Your task to perform on an android device: turn off data saver in the chrome app Image 0: 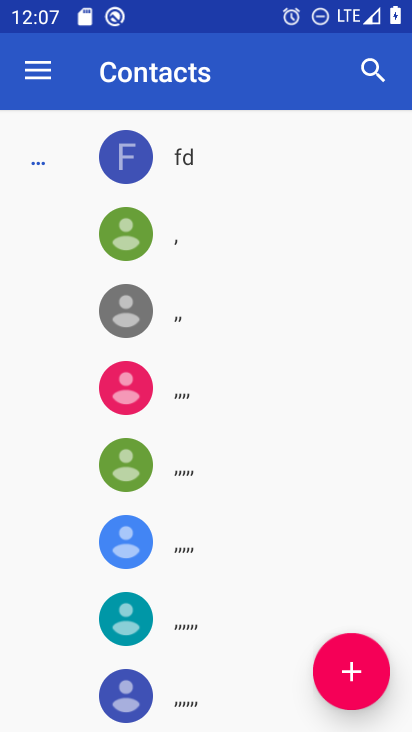
Step 0: press home button
Your task to perform on an android device: turn off data saver in the chrome app Image 1: 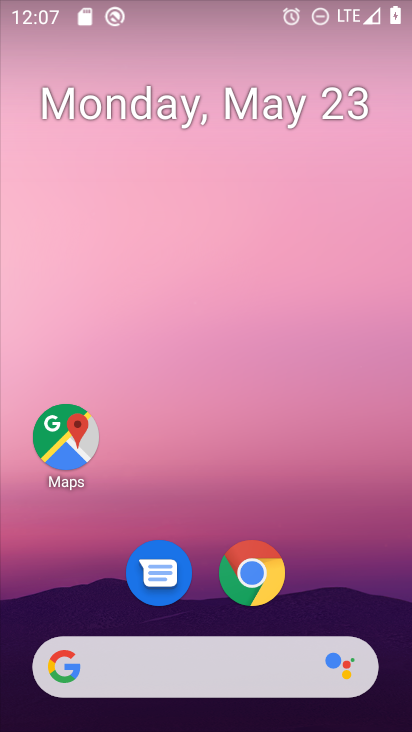
Step 1: click (252, 572)
Your task to perform on an android device: turn off data saver in the chrome app Image 2: 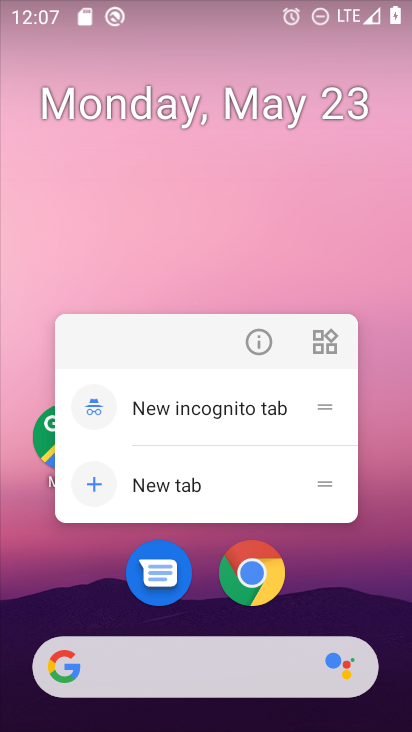
Step 2: click (235, 571)
Your task to perform on an android device: turn off data saver in the chrome app Image 3: 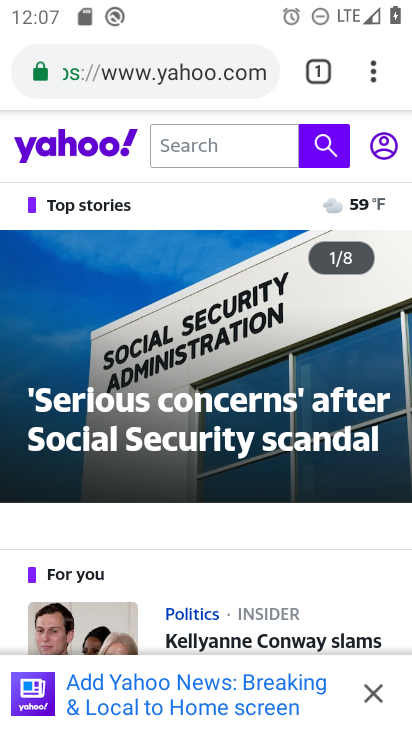
Step 3: click (372, 77)
Your task to perform on an android device: turn off data saver in the chrome app Image 4: 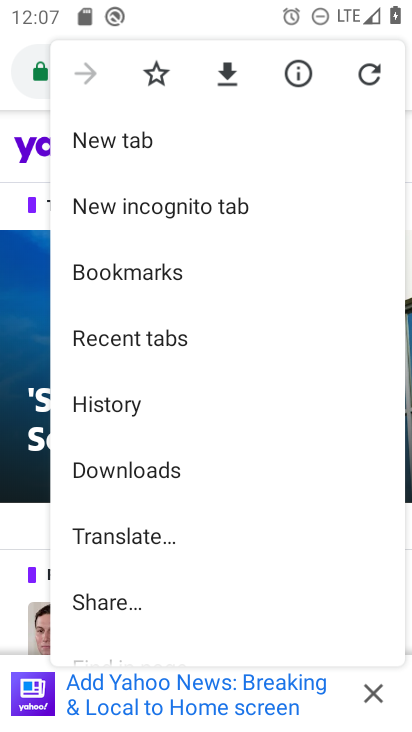
Step 4: drag from (188, 640) to (249, 279)
Your task to perform on an android device: turn off data saver in the chrome app Image 5: 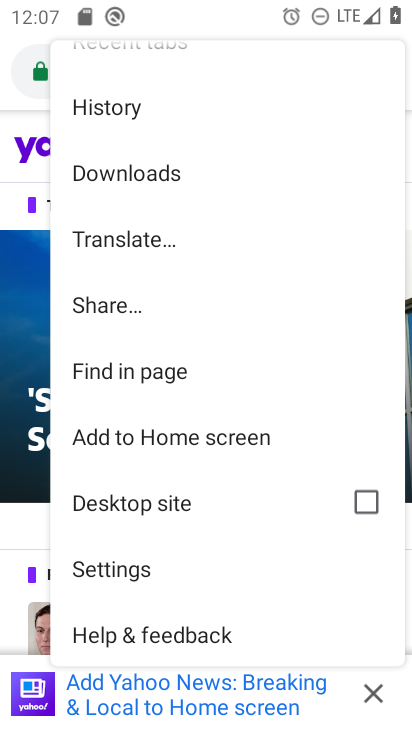
Step 5: click (161, 575)
Your task to perform on an android device: turn off data saver in the chrome app Image 6: 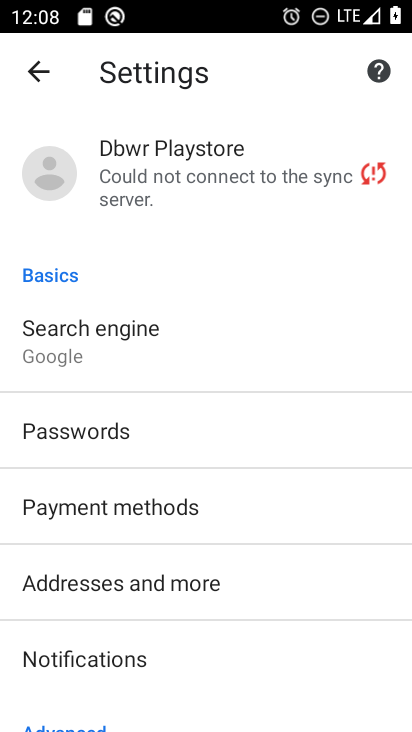
Step 6: drag from (149, 668) to (167, 304)
Your task to perform on an android device: turn off data saver in the chrome app Image 7: 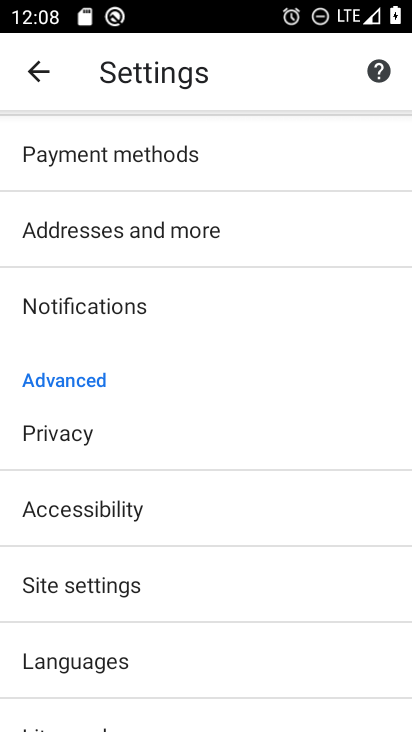
Step 7: drag from (136, 702) to (175, 472)
Your task to perform on an android device: turn off data saver in the chrome app Image 8: 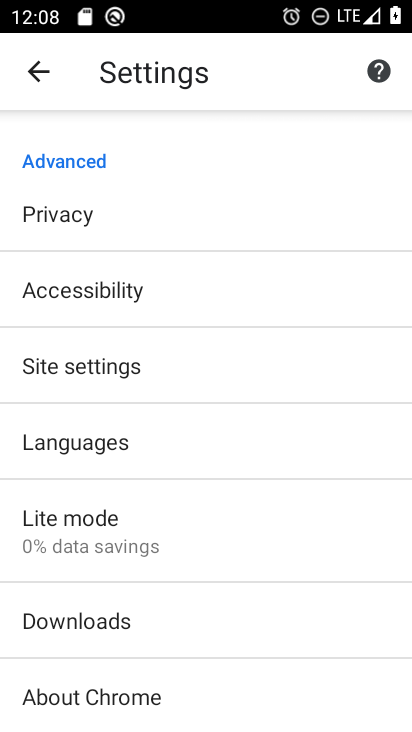
Step 8: click (119, 535)
Your task to perform on an android device: turn off data saver in the chrome app Image 9: 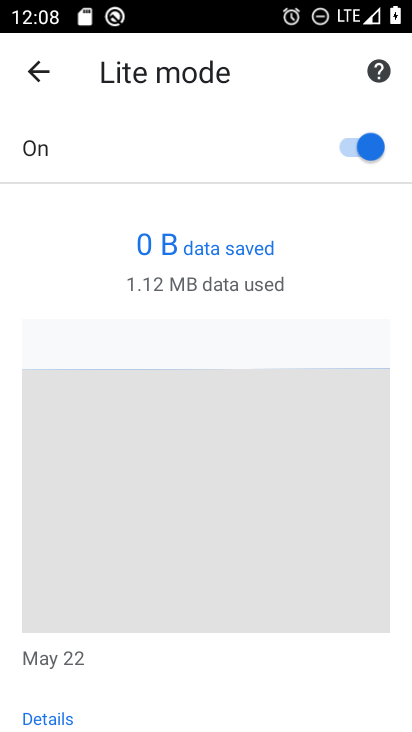
Step 9: click (366, 141)
Your task to perform on an android device: turn off data saver in the chrome app Image 10: 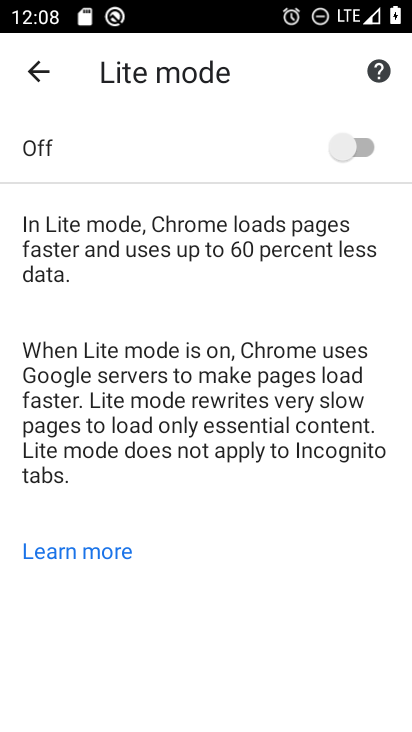
Step 10: task complete